Your task to perform on an android device: Show me recent news Image 0: 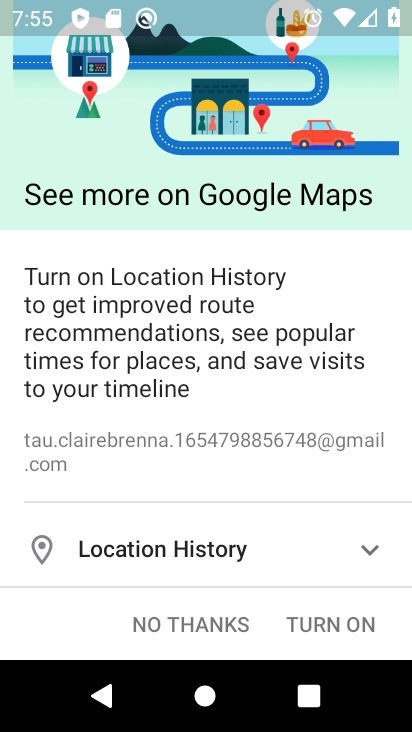
Step 0: click (332, 622)
Your task to perform on an android device: Show me recent news Image 1: 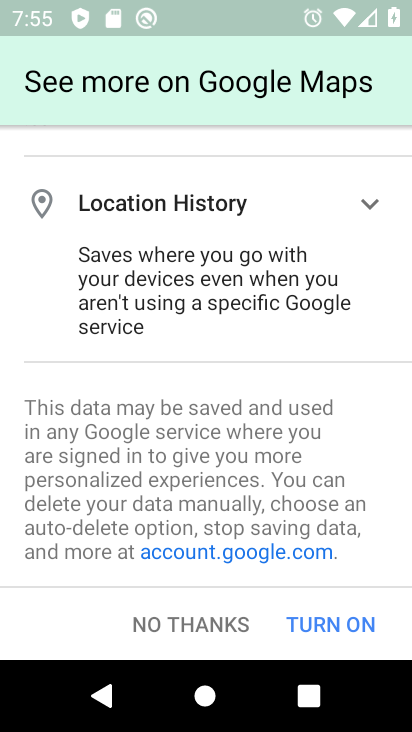
Step 1: click (334, 617)
Your task to perform on an android device: Show me recent news Image 2: 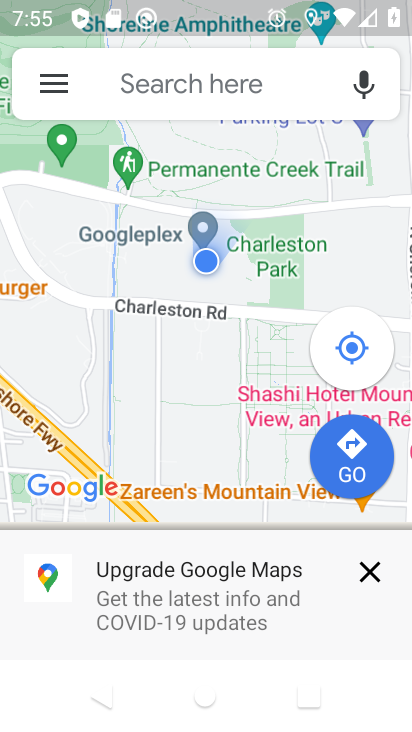
Step 2: press home button
Your task to perform on an android device: Show me recent news Image 3: 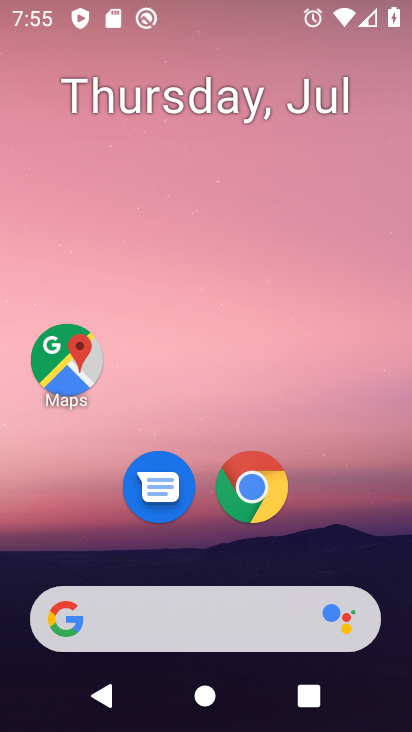
Step 3: drag from (251, 594) to (262, 143)
Your task to perform on an android device: Show me recent news Image 4: 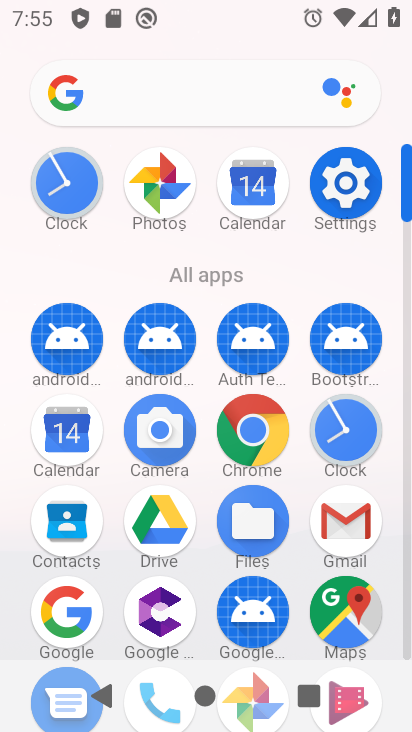
Step 4: click (65, 617)
Your task to perform on an android device: Show me recent news Image 5: 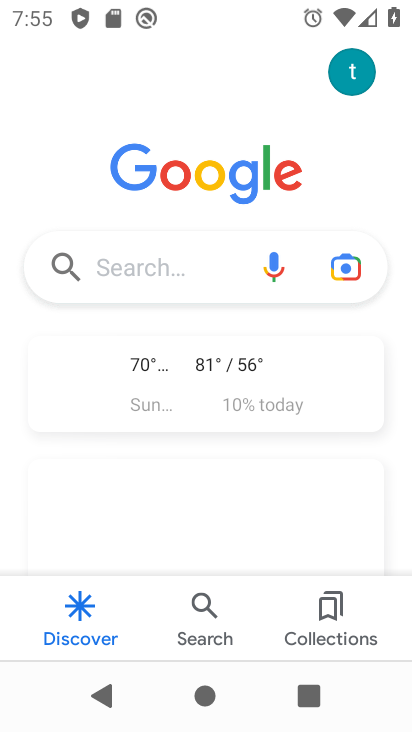
Step 5: click (196, 275)
Your task to perform on an android device: Show me recent news Image 6: 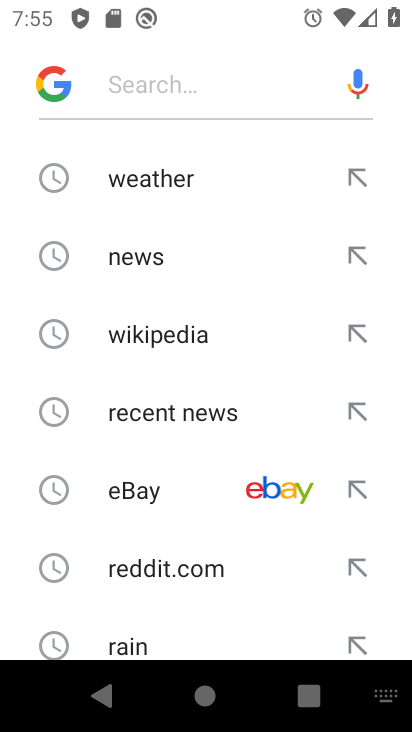
Step 6: click (162, 286)
Your task to perform on an android device: Show me recent news Image 7: 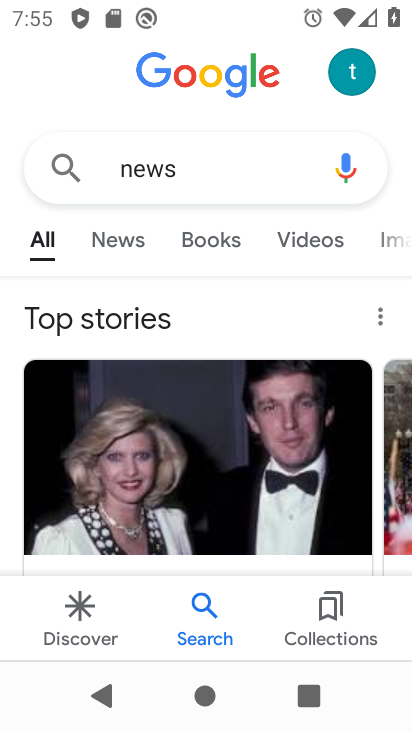
Step 7: click (115, 247)
Your task to perform on an android device: Show me recent news Image 8: 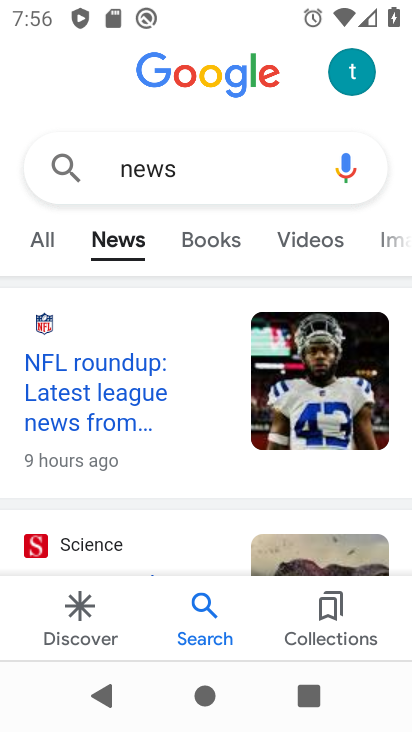
Step 8: task complete